Your task to perform on an android device: Is it going to rain tomorrow? Image 0: 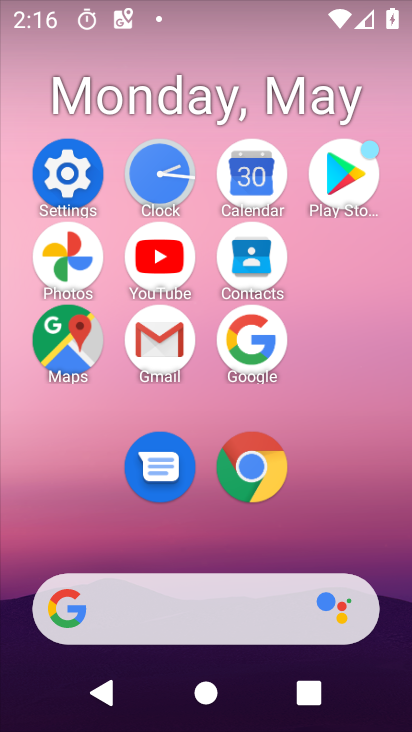
Step 0: click (287, 332)
Your task to perform on an android device: Is it going to rain tomorrow? Image 1: 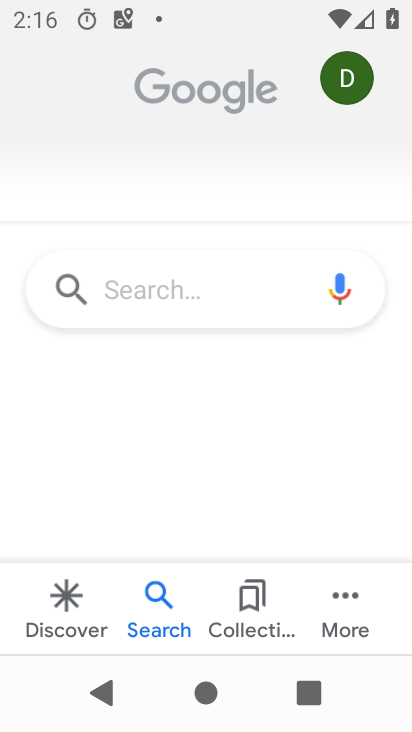
Step 1: click (241, 295)
Your task to perform on an android device: Is it going to rain tomorrow? Image 2: 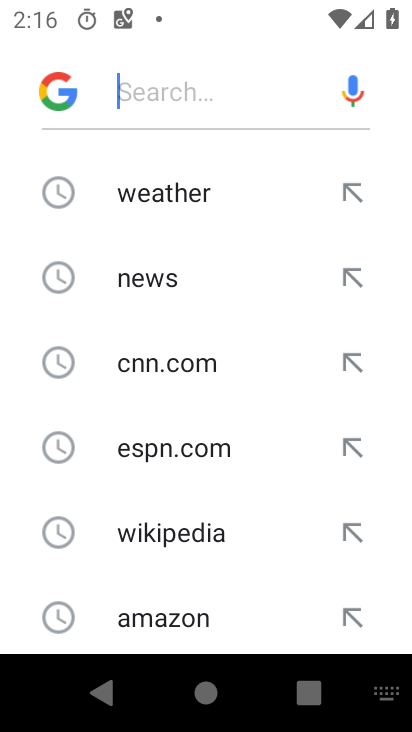
Step 2: click (157, 176)
Your task to perform on an android device: Is it going to rain tomorrow? Image 3: 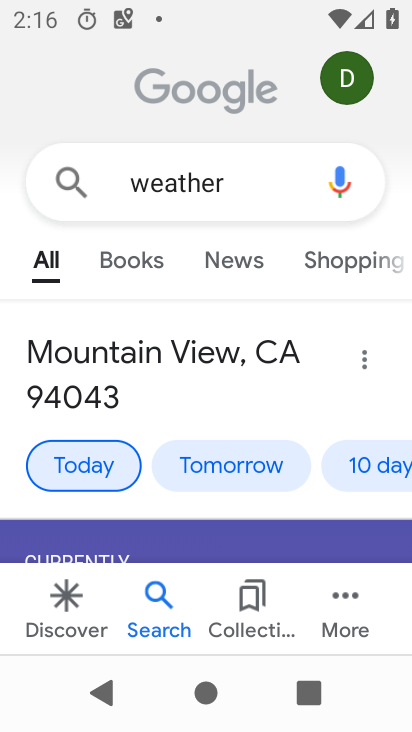
Step 3: click (246, 462)
Your task to perform on an android device: Is it going to rain tomorrow? Image 4: 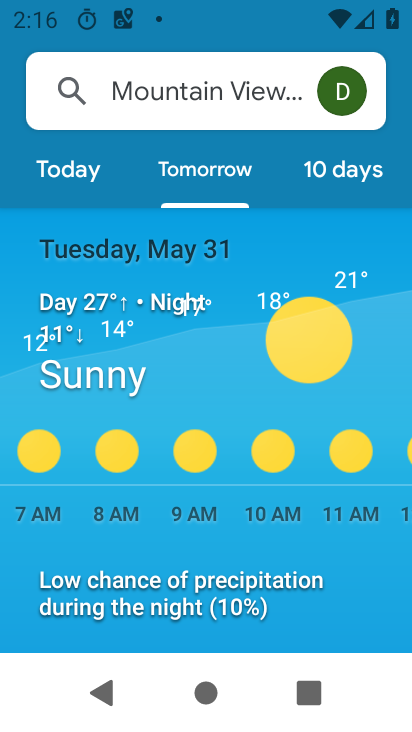
Step 4: task complete